Your task to perform on an android device: Show me popular games on the Play Store Image 0: 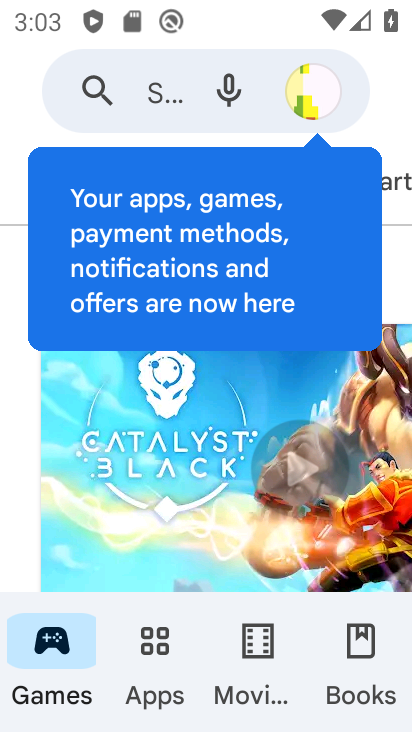
Step 0: press home button
Your task to perform on an android device: Show me popular games on the Play Store Image 1: 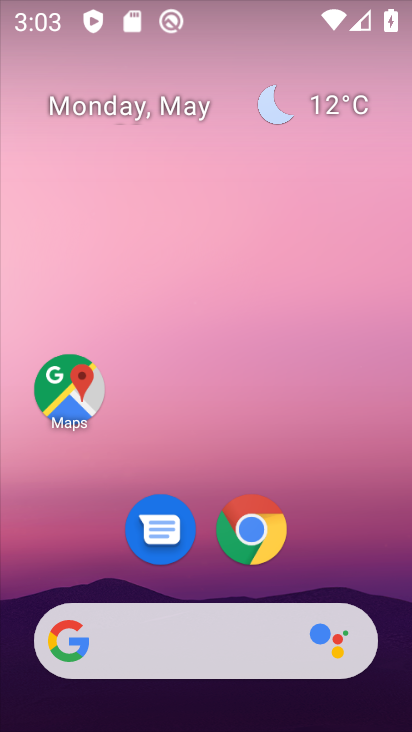
Step 1: drag from (314, 511) to (297, 103)
Your task to perform on an android device: Show me popular games on the Play Store Image 2: 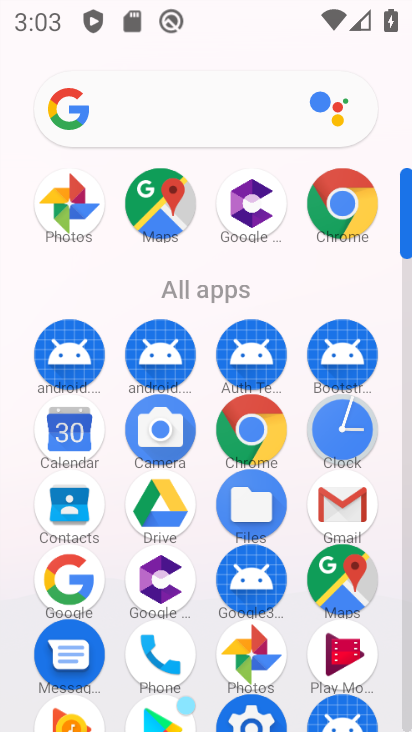
Step 2: drag from (279, 616) to (312, 230)
Your task to perform on an android device: Show me popular games on the Play Store Image 3: 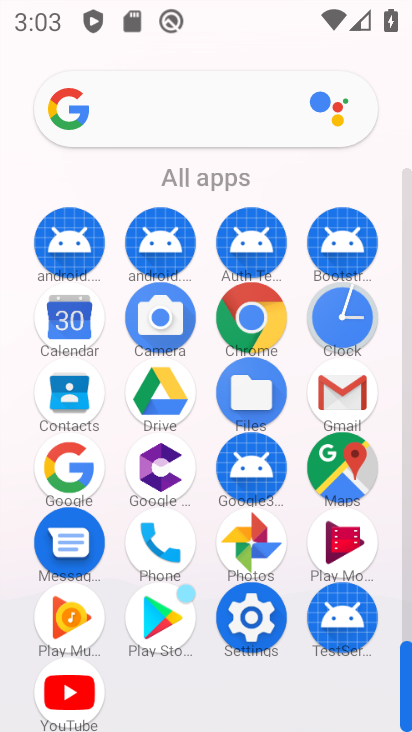
Step 3: click (157, 632)
Your task to perform on an android device: Show me popular games on the Play Store Image 4: 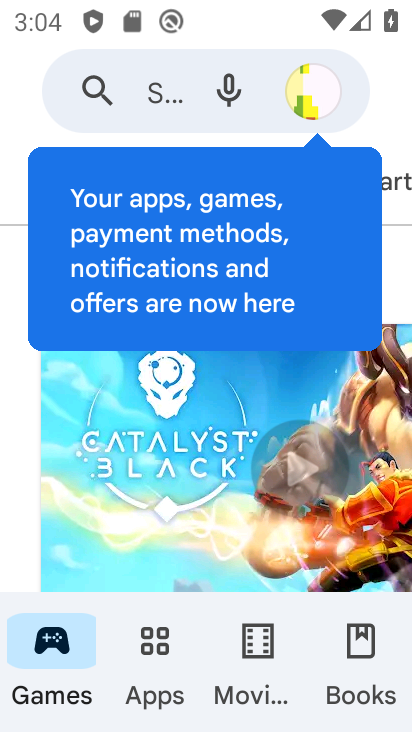
Step 4: drag from (193, 483) to (231, 105)
Your task to perform on an android device: Show me popular games on the Play Store Image 5: 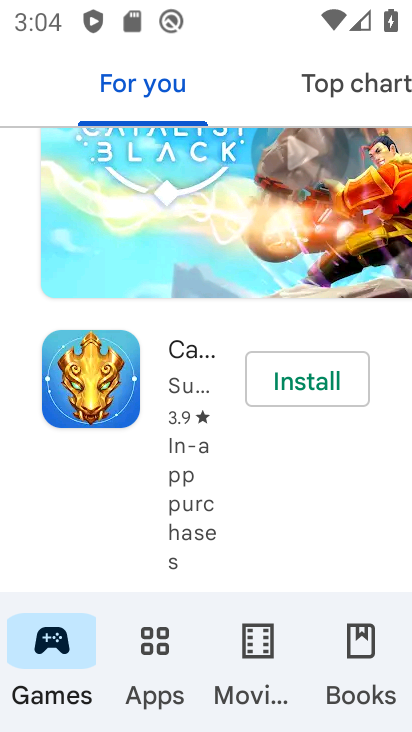
Step 5: drag from (178, 470) to (235, 134)
Your task to perform on an android device: Show me popular games on the Play Store Image 6: 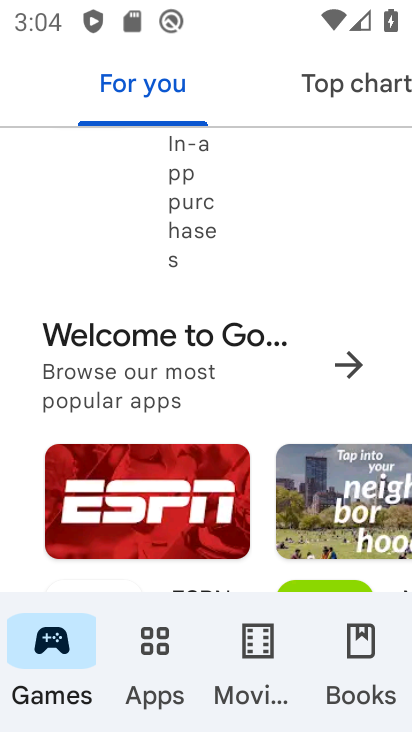
Step 6: drag from (173, 508) to (206, 150)
Your task to perform on an android device: Show me popular games on the Play Store Image 7: 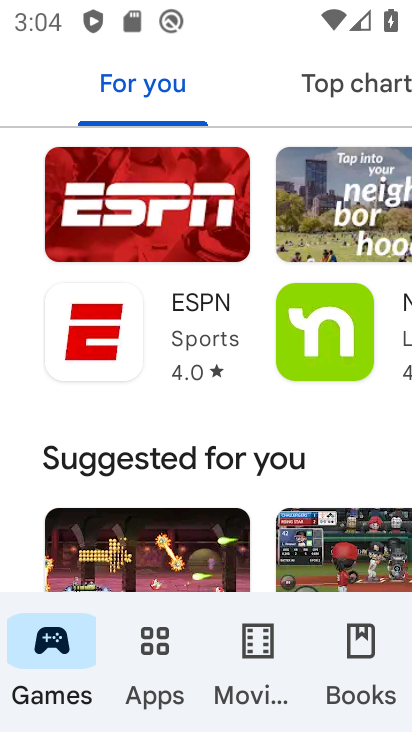
Step 7: drag from (192, 518) to (216, 154)
Your task to perform on an android device: Show me popular games on the Play Store Image 8: 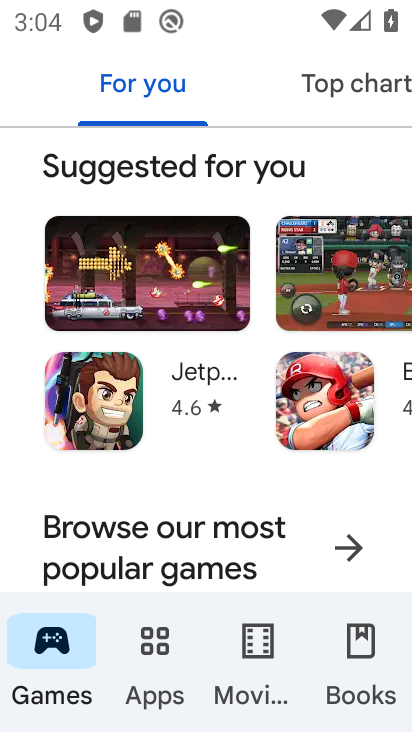
Step 8: drag from (170, 460) to (249, 136)
Your task to perform on an android device: Show me popular games on the Play Store Image 9: 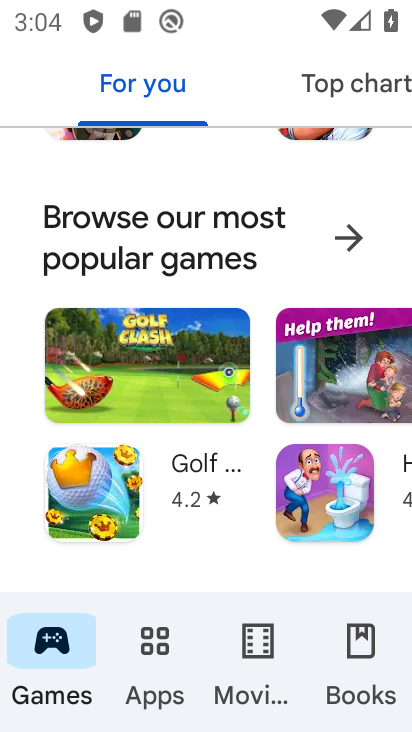
Step 9: drag from (216, 462) to (234, 104)
Your task to perform on an android device: Show me popular games on the Play Store Image 10: 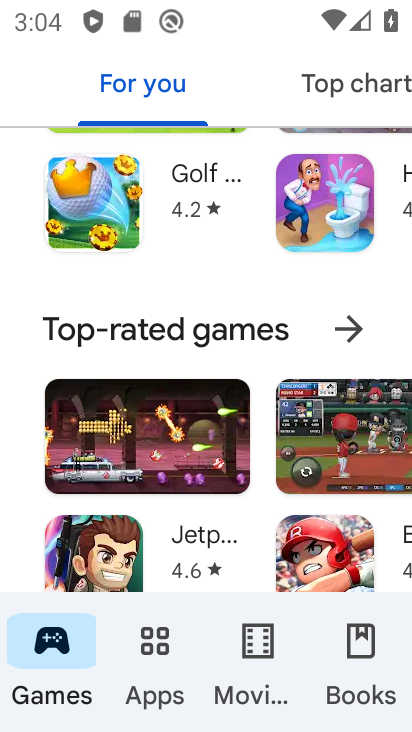
Step 10: drag from (177, 468) to (233, 140)
Your task to perform on an android device: Show me popular games on the Play Store Image 11: 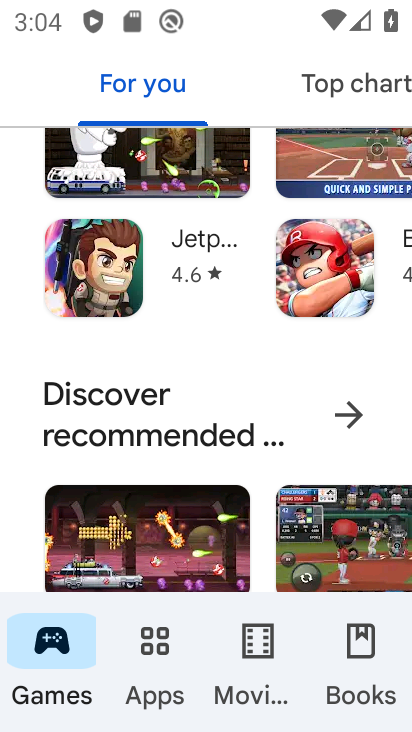
Step 11: drag from (211, 523) to (262, 164)
Your task to perform on an android device: Show me popular games on the Play Store Image 12: 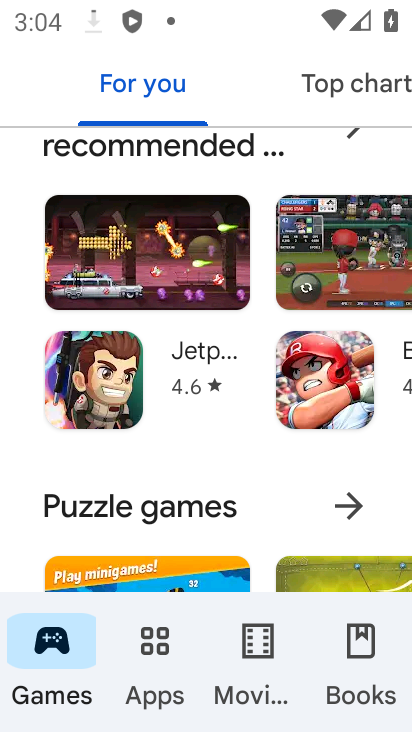
Step 12: drag from (201, 572) to (275, 166)
Your task to perform on an android device: Show me popular games on the Play Store Image 13: 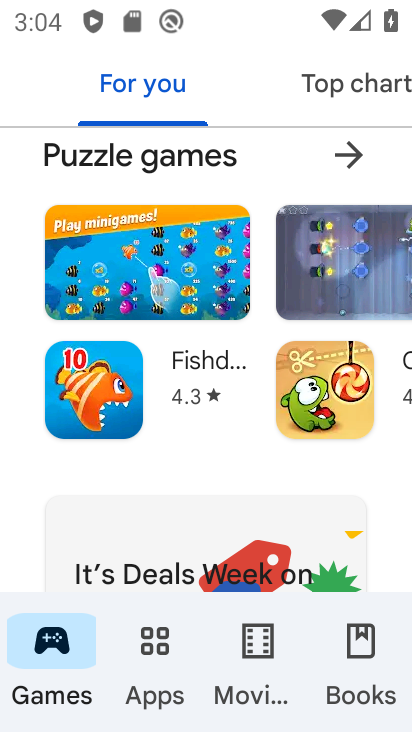
Step 13: drag from (235, 493) to (250, 205)
Your task to perform on an android device: Show me popular games on the Play Store Image 14: 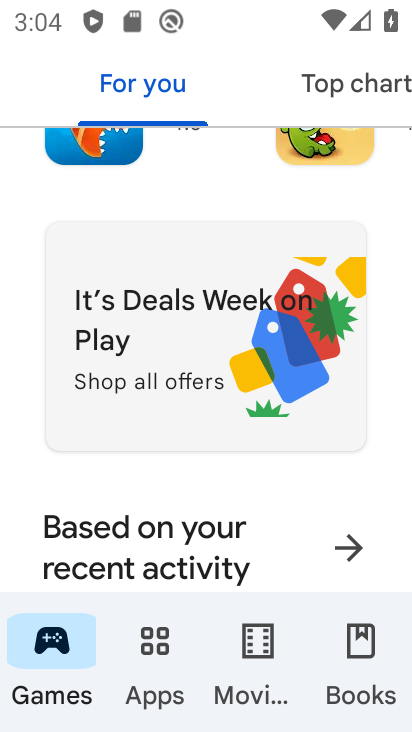
Step 14: drag from (215, 545) to (226, 198)
Your task to perform on an android device: Show me popular games on the Play Store Image 15: 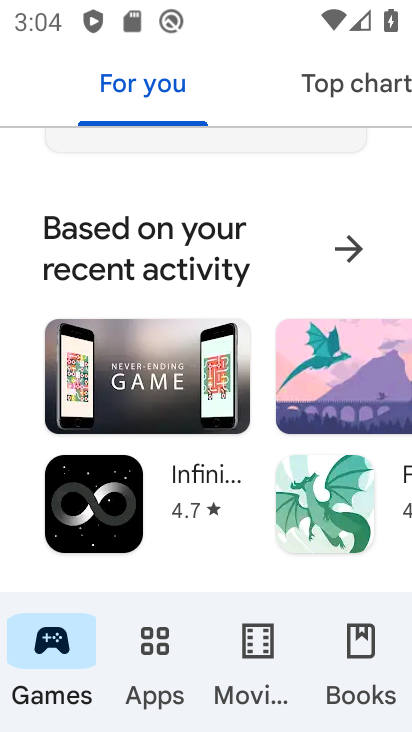
Step 15: drag from (218, 491) to (224, 147)
Your task to perform on an android device: Show me popular games on the Play Store Image 16: 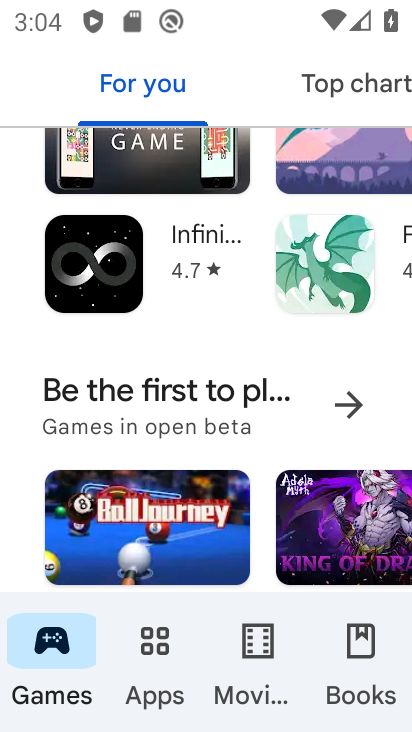
Step 16: drag from (183, 446) to (230, 149)
Your task to perform on an android device: Show me popular games on the Play Store Image 17: 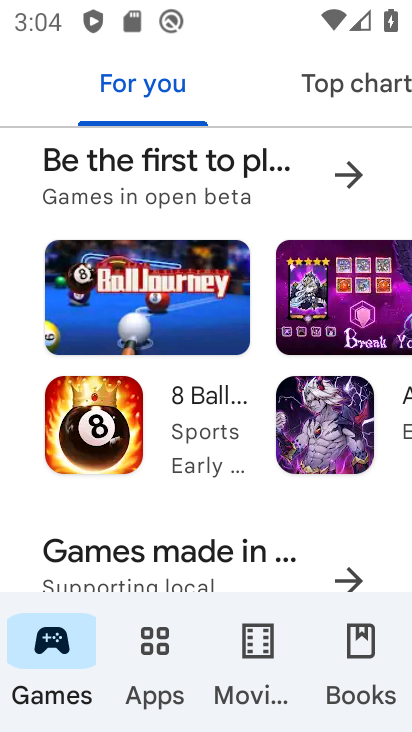
Step 17: drag from (192, 426) to (241, 145)
Your task to perform on an android device: Show me popular games on the Play Store Image 18: 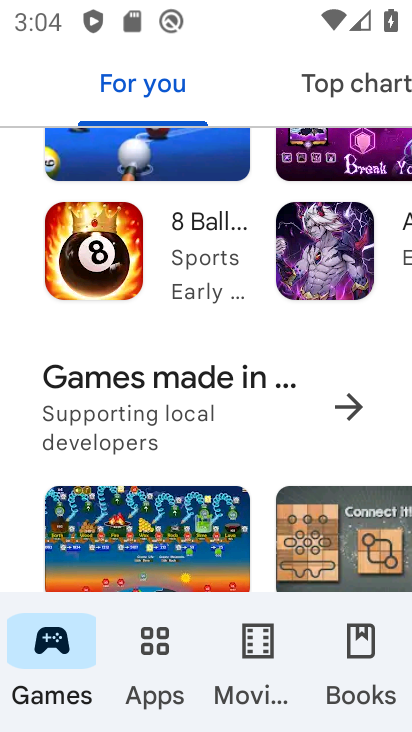
Step 18: drag from (218, 426) to (248, 153)
Your task to perform on an android device: Show me popular games on the Play Store Image 19: 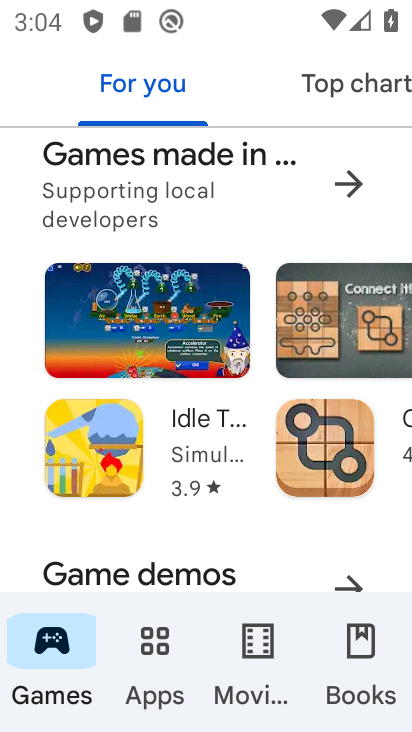
Step 19: drag from (189, 527) to (230, 184)
Your task to perform on an android device: Show me popular games on the Play Store Image 20: 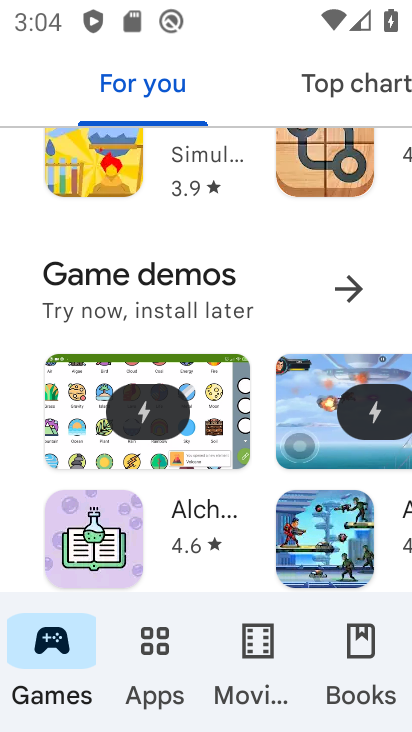
Step 20: drag from (206, 462) to (241, 191)
Your task to perform on an android device: Show me popular games on the Play Store Image 21: 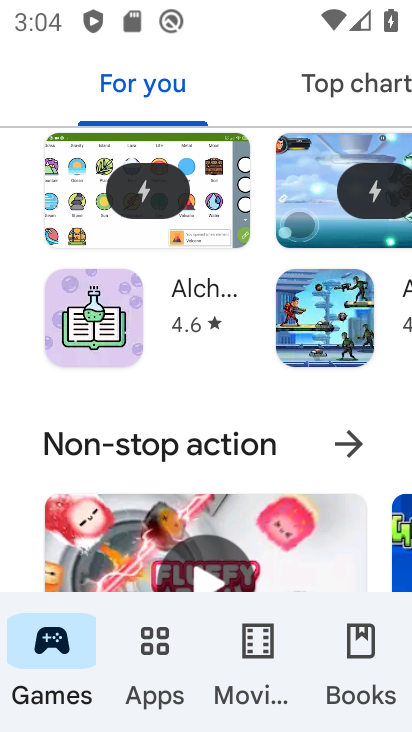
Step 21: drag from (186, 477) to (223, 222)
Your task to perform on an android device: Show me popular games on the Play Store Image 22: 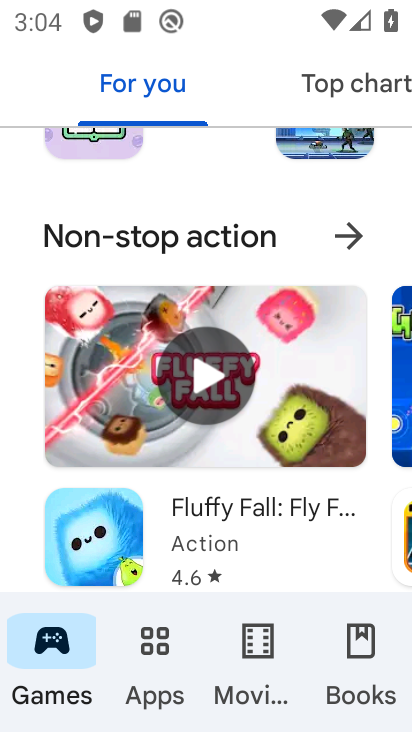
Step 22: click (223, 210)
Your task to perform on an android device: Show me popular games on the Play Store Image 23: 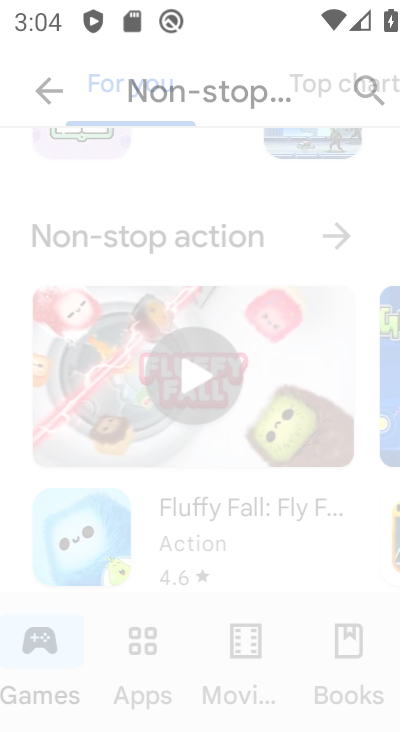
Step 23: drag from (213, 366) to (245, 169)
Your task to perform on an android device: Show me popular games on the Play Store Image 24: 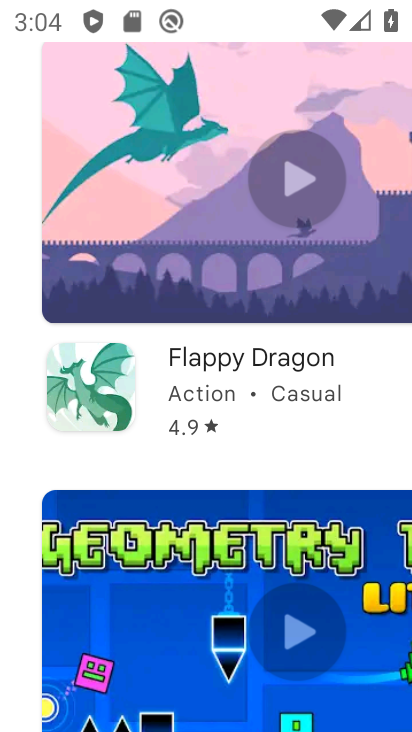
Step 24: click (243, 115)
Your task to perform on an android device: Show me popular games on the Play Store Image 25: 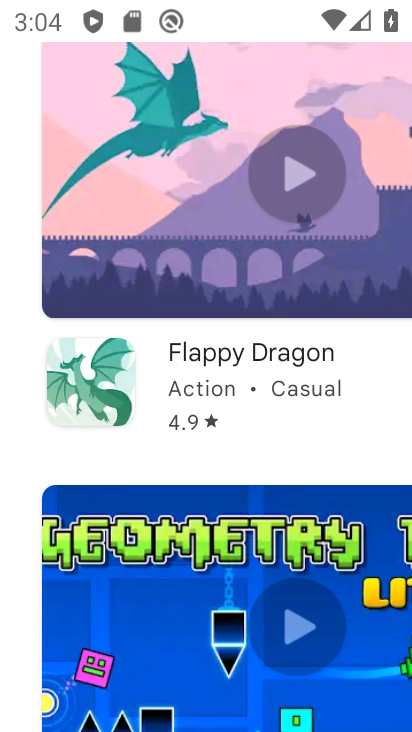
Step 25: drag from (96, 115) to (149, 503)
Your task to perform on an android device: Show me popular games on the Play Store Image 26: 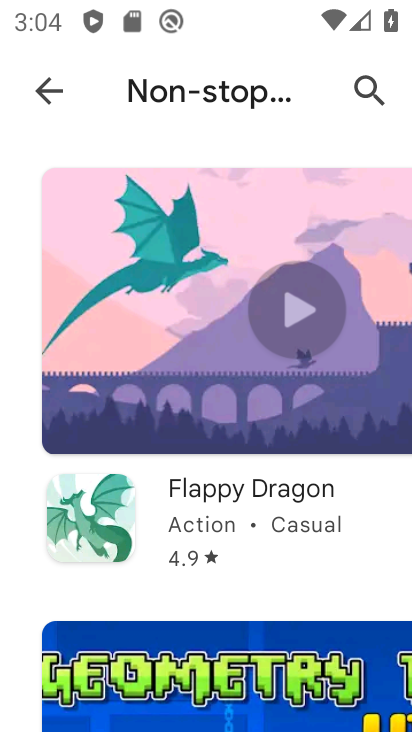
Step 26: click (53, 104)
Your task to perform on an android device: Show me popular games on the Play Store Image 27: 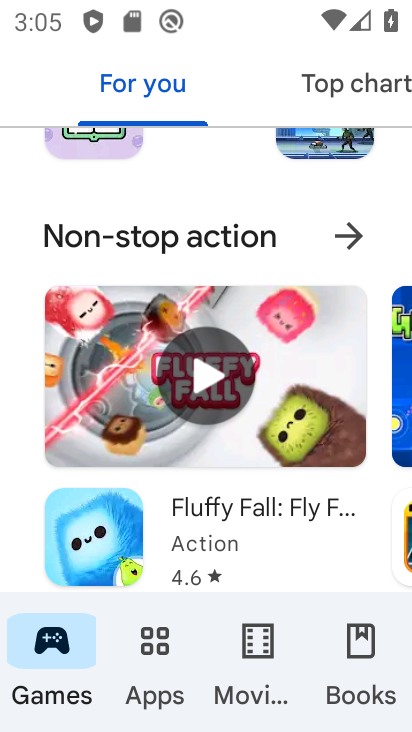
Step 27: drag from (200, 555) to (242, 154)
Your task to perform on an android device: Show me popular games on the Play Store Image 28: 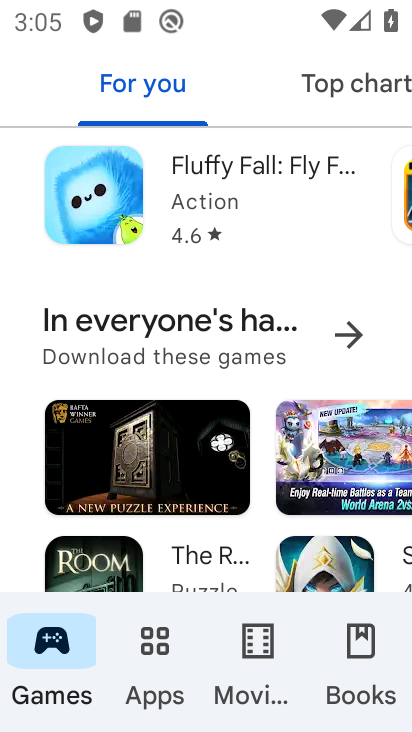
Step 28: drag from (183, 491) to (235, 167)
Your task to perform on an android device: Show me popular games on the Play Store Image 29: 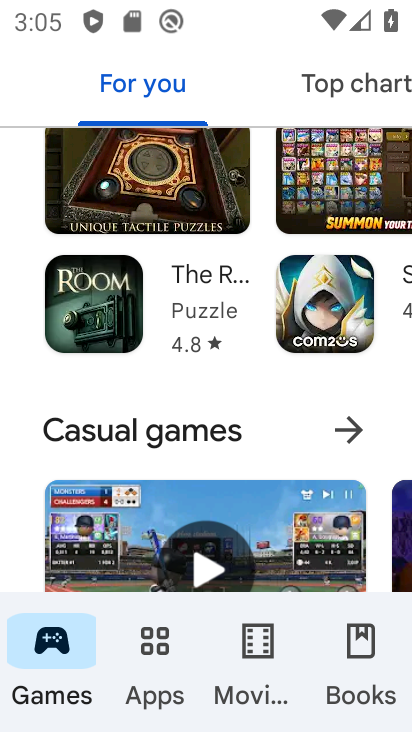
Step 29: drag from (152, 528) to (229, 148)
Your task to perform on an android device: Show me popular games on the Play Store Image 30: 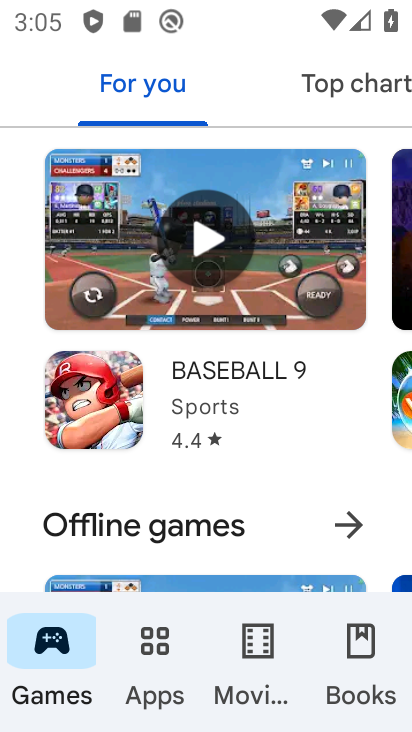
Step 30: drag from (214, 510) to (270, 214)
Your task to perform on an android device: Show me popular games on the Play Store Image 31: 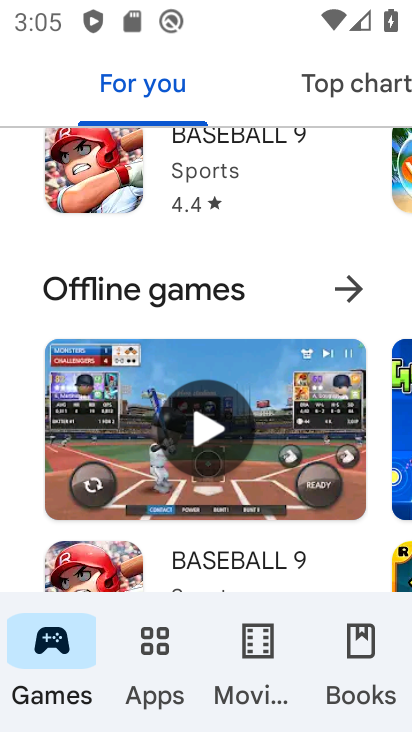
Step 31: drag from (122, 514) to (166, 176)
Your task to perform on an android device: Show me popular games on the Play Store Image 32: 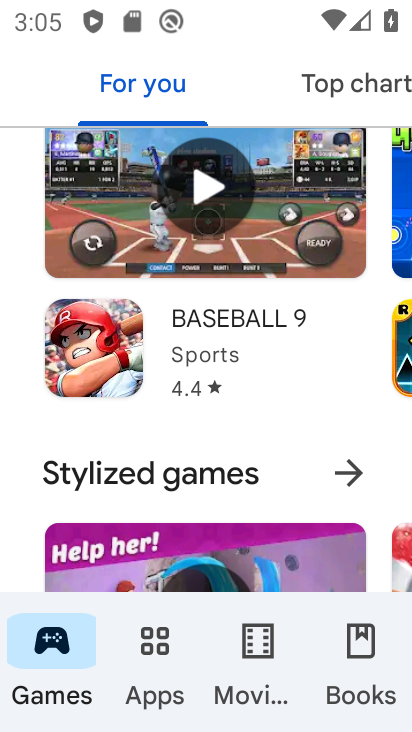
Step 32: click (168, 168)
Your task to perform on an android device: Show me popular games on the Play Store Image 33: 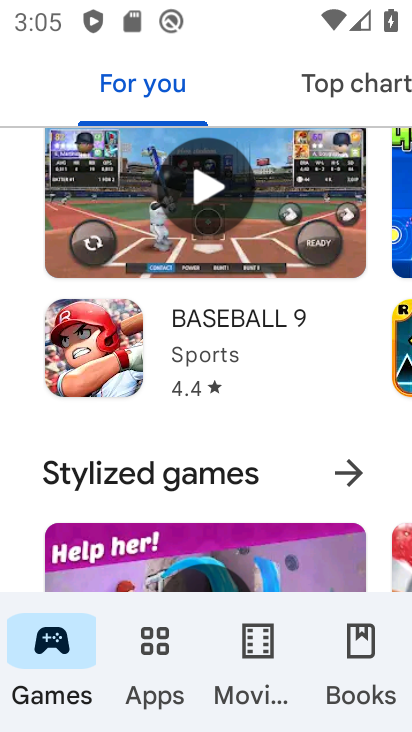
Step 33: drag from (191, 520) to (253, 199)
Your task to perform on an android device: Show me popular games on the Play Store Image 34: 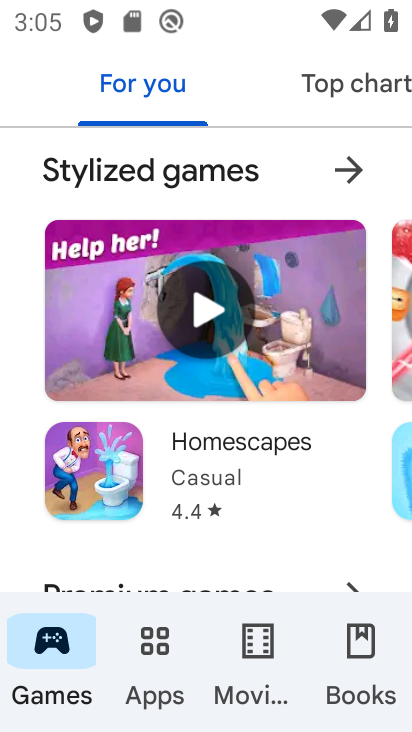
Step 34: drag from (213, 521) to (257, 212)
Your task to perform on an android device: Show me popular games on the Play Store Image 35: 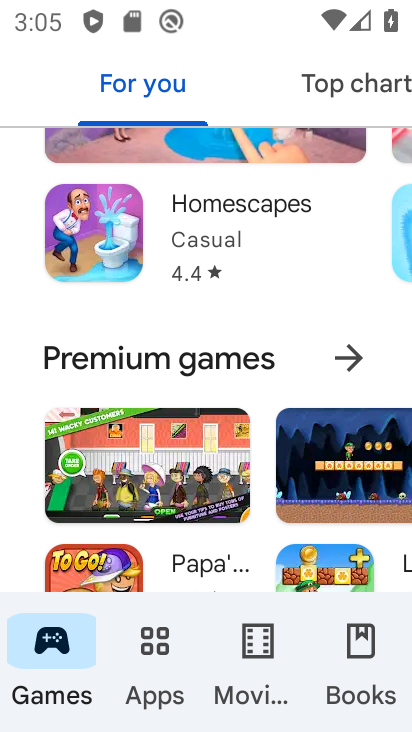
Step 35: drag from (200, 488) to (246, 230)
Your task to perform on an android device: Show me popular games on the Play Store Image 36: 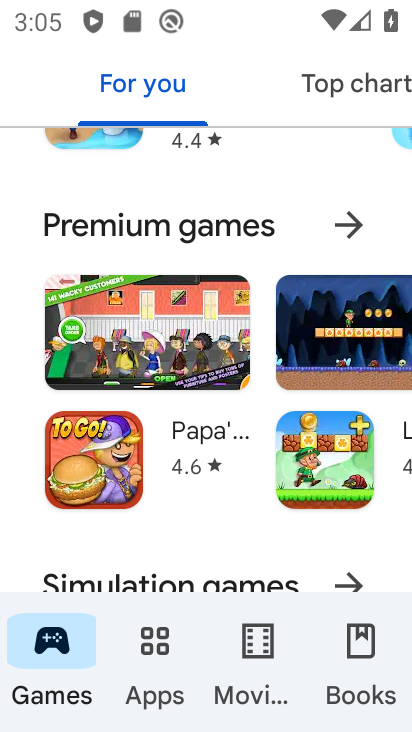
Step 36: drag from (186, 432) to (233, 164)
Your task to perform on an android device: Show me popular games on the Play Store Image 37: 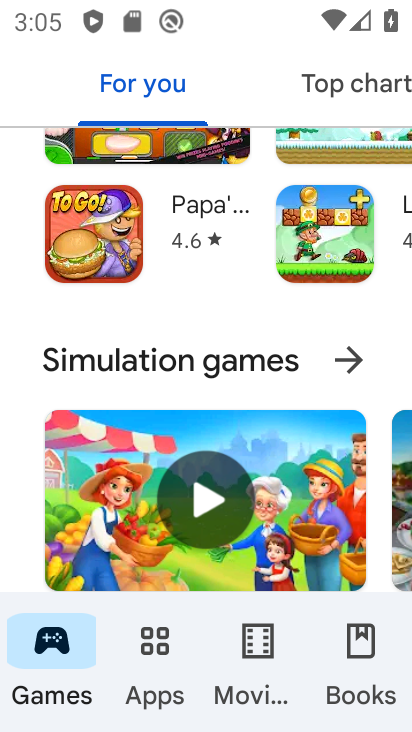
Step 37: drag from (246, 353) to (243, 147)
Your task to perform on an android device: Show me popular games on the Play Store Image 38: 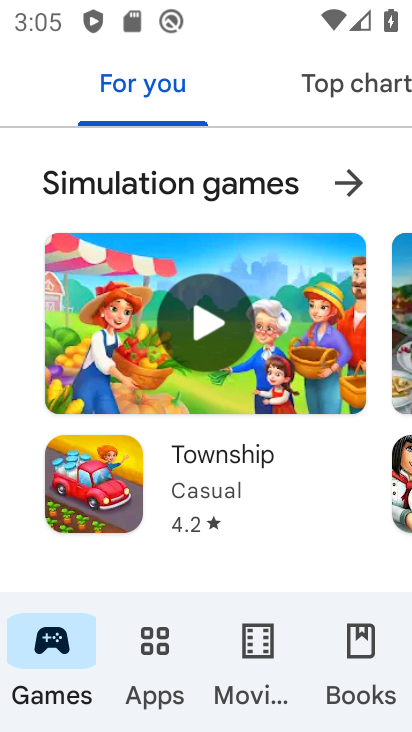
Step 38: drag from (141, 517) to (190, 204)
Your task to perform on an android device: Show me popular games on the Play Store Image 39: 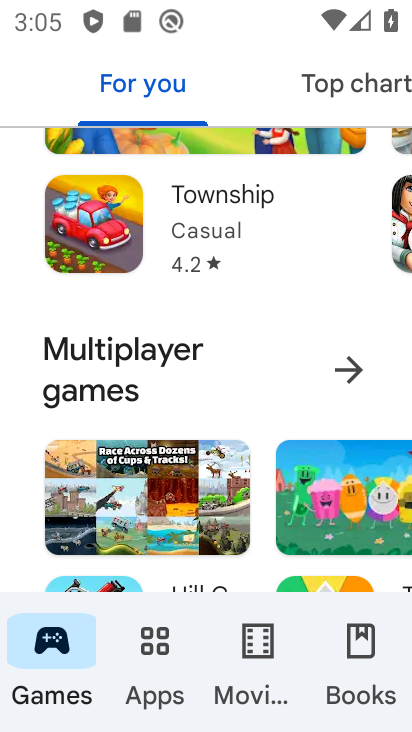
Step 39: drag from (195, 445) to (224, 171)
Your task to perform on an android device: Show me popular games on the Play Store Image 40: 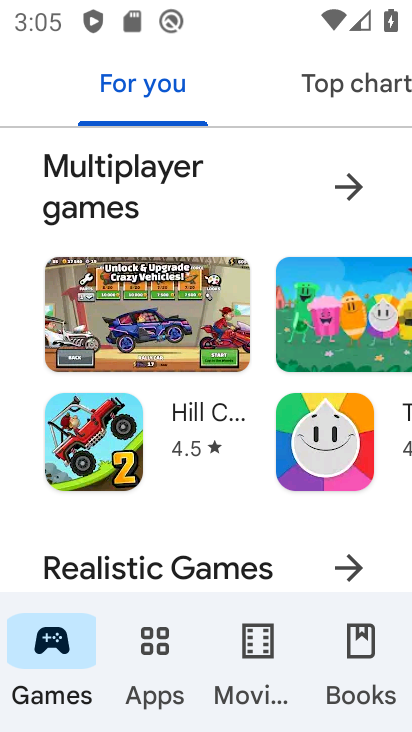
Step 40: drag from (176, 527) to (228, 151)
Your task to perform on an android device: Show me popular games on the Play Store Image 41: 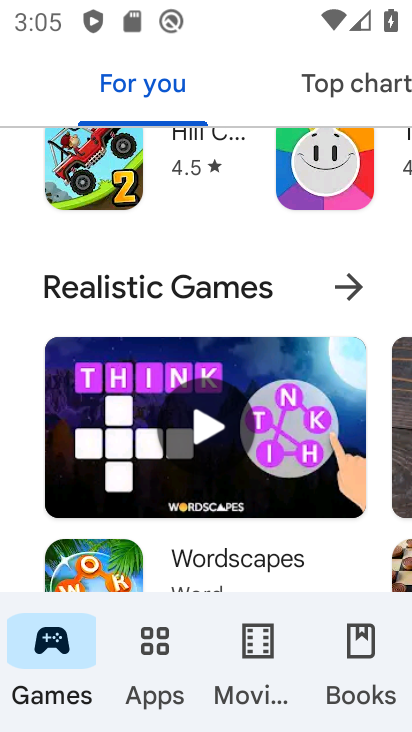
Step 41: drag from (209, 479) to (236, 165)
Your task to perform on an android device: Show me popular games on the Play Store Image 42: 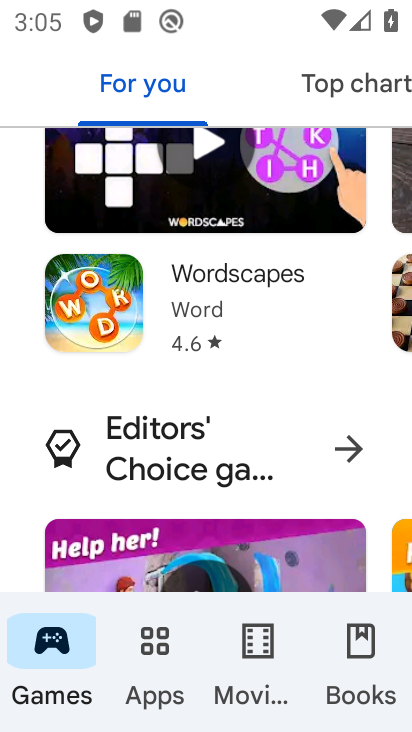
Step 42: drag from (184, 514) to (220, 164)
Your task to perform on an android device: Show me popular games on the Play Store Image 43: 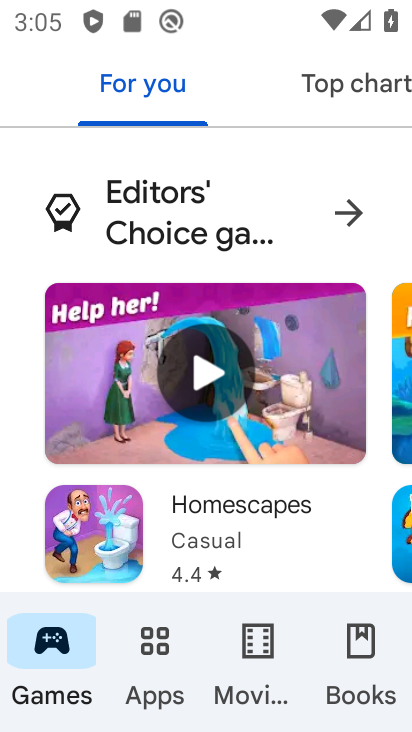
Step 43: click (222, 158)
Your task to perform on an android device: Show me popular games on the Play Store Image 44: 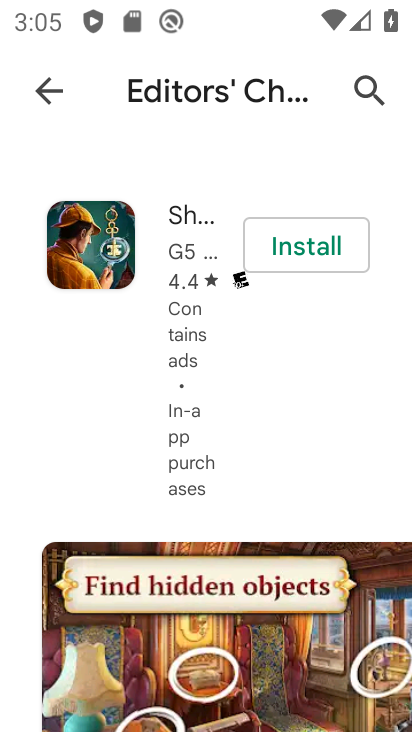
Step 44: click (57, 89)
Your task to perform on an android device: Show me popular games on the Play Store Image 45: 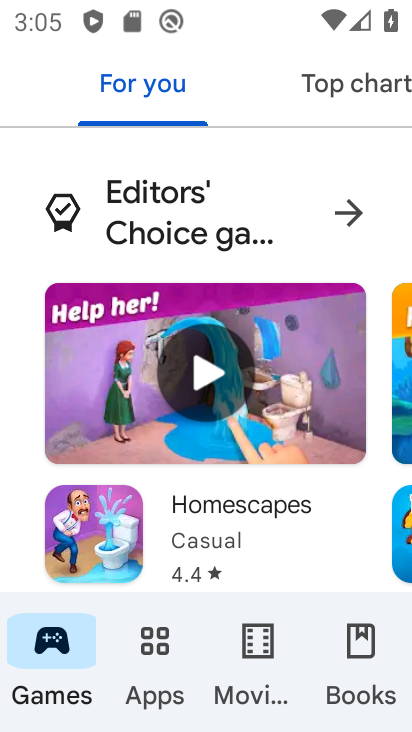
Step 45: drag from (172, 512) to (227, 90)
Your task to perform on an android device: Show me popular games on the Play Store Image 46: 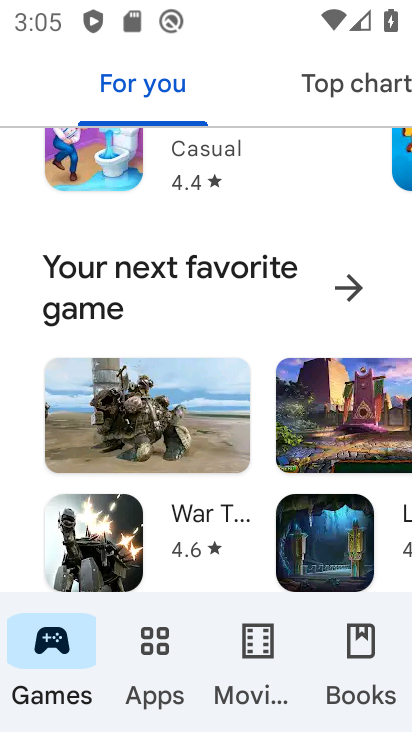
Step 46: drag from (164, 472) to (209, 124)
Your task to perform on an android device: Show me popular games on the Play Store Image 47: 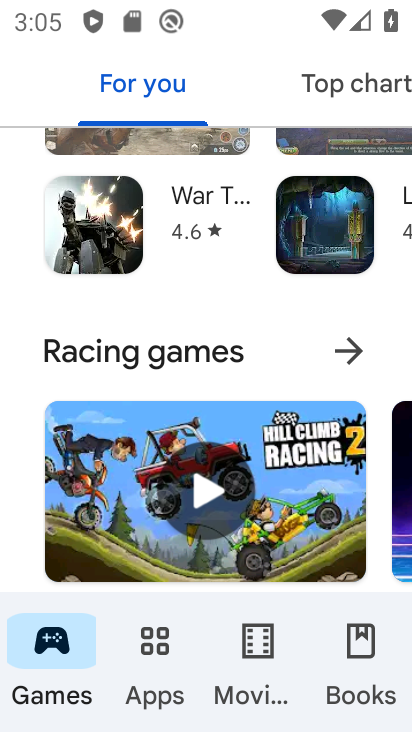
Step 47: drag from (318, 560) to (314, 127)
Your task to perform on an android device: Show me popular games on the Play Store Image 48: 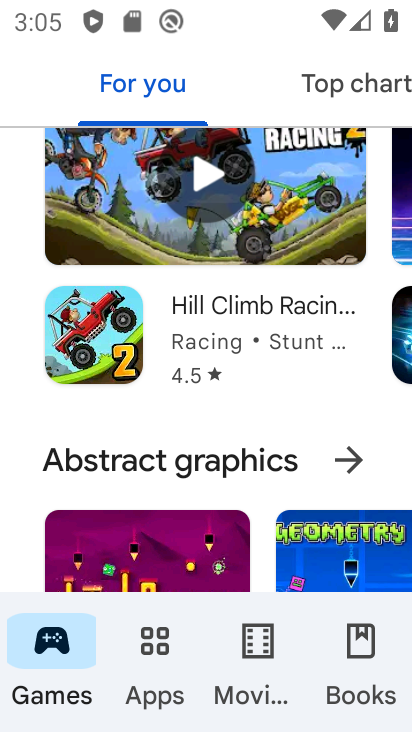
Step 48: drag from (250, 503) to (271, 146)
Your task to perform on an android device: Show me popular games on the Play Store Image 49: 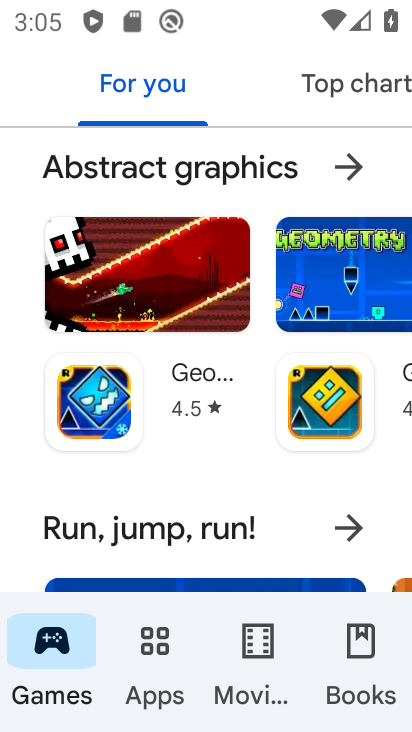
Step 49: drag from (217, 545) to (234, 212)
Your task to perform on an android device: Show me popular games on the Play Store Image 50: 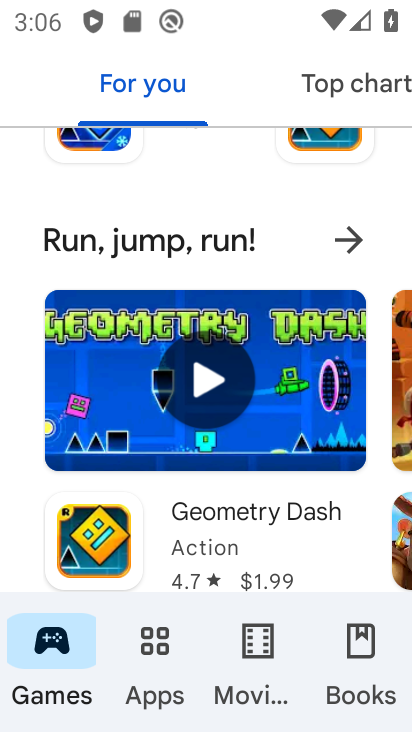
Step 50: drag from (204, 569) to (303, 252)
Your task to perform on an android device: Show me popular games on the Play Store Image 51: 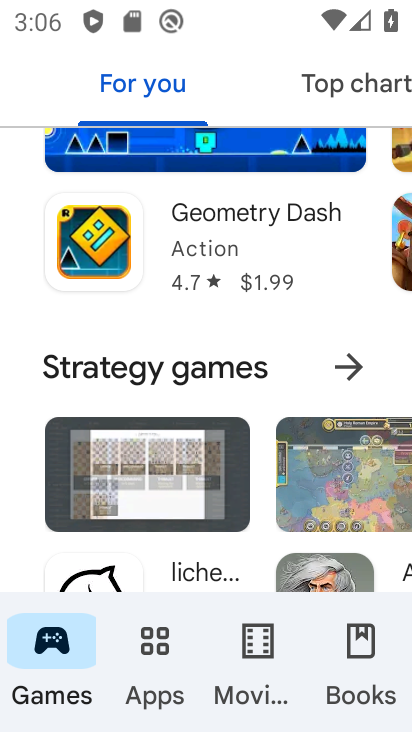
Step 51: drag from (217, 516) to (232, 183)
Your task to perform on an android device: Show me popular games on the Play Store Image 52: 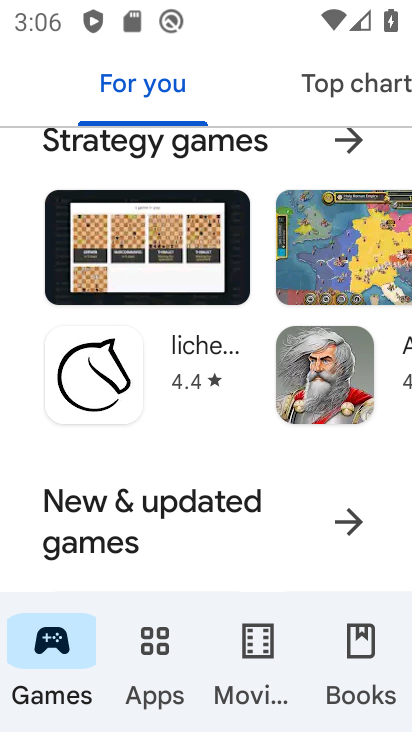
Step 52: drag from (190, 556) to (222, 179)
Your task to perform on an android device: Show me popular games on the Play Store Image 53: 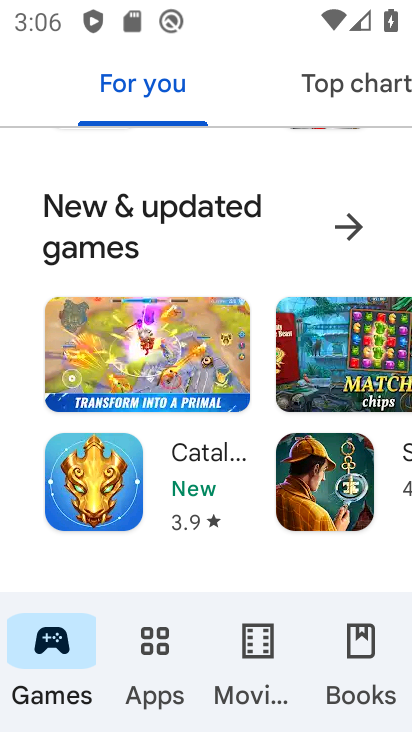
Step 53: drag from (195, 515) to (230, 152)
Your task to perform on an android device: Show me popular games on the Play Store Image 54: 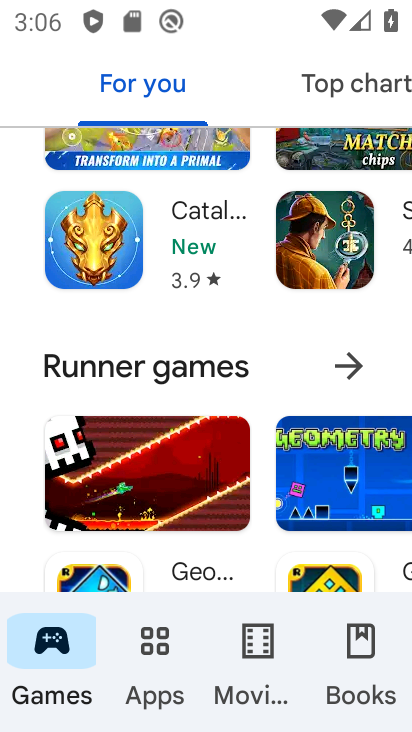
Step 54: drag from (159, 495) to (209, 108)
Your task to perform on an android device: Show me popular games on the Play Store Image 55: 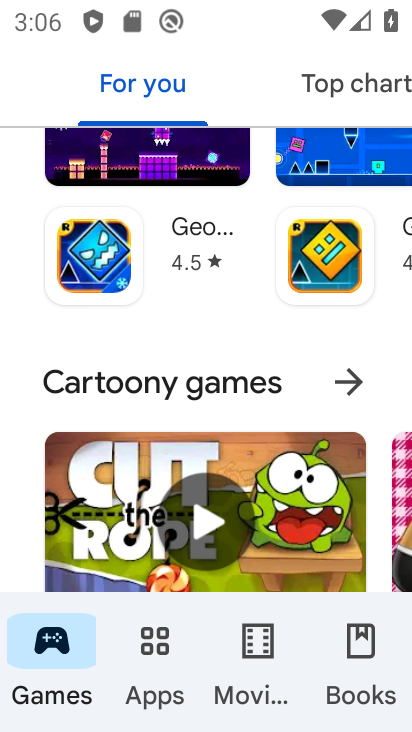
Step 55: drag from (136, 519) to (180, 127)
Your task to perform on an android device: Show me popular games on the Play Store Image 56: 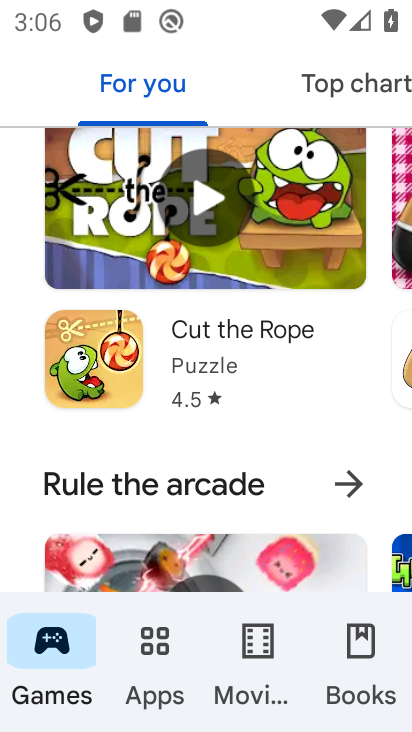
Step 56: drag from (244, 558) to (275, 218)
Your task to perform on an android device: Show me popular games on the Play Store Image 57: 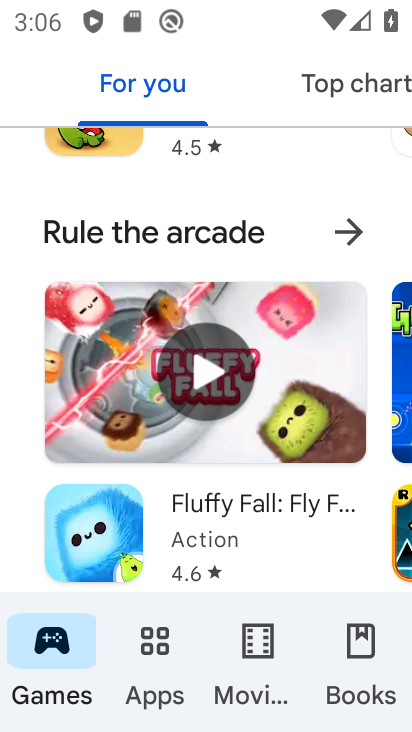
Step 57: click (281, 200)
Your task to perform on an android device: Show me popular games on the Play Store Image 58: 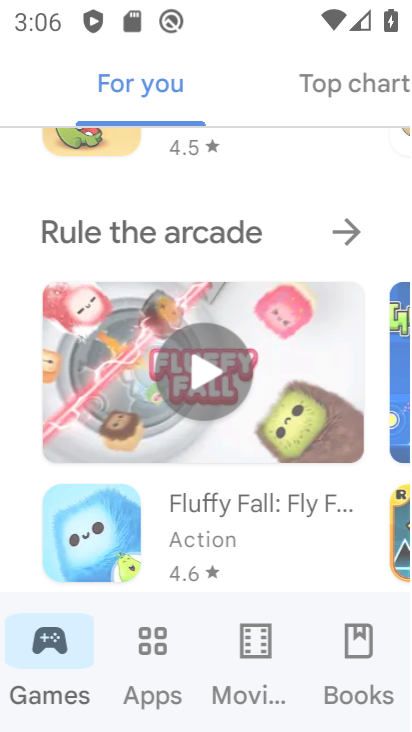
Step 58: drag from (242, 564) to (294, 265)
Your task to perform on an android device: Show me popular games on the Play Store Image 59: 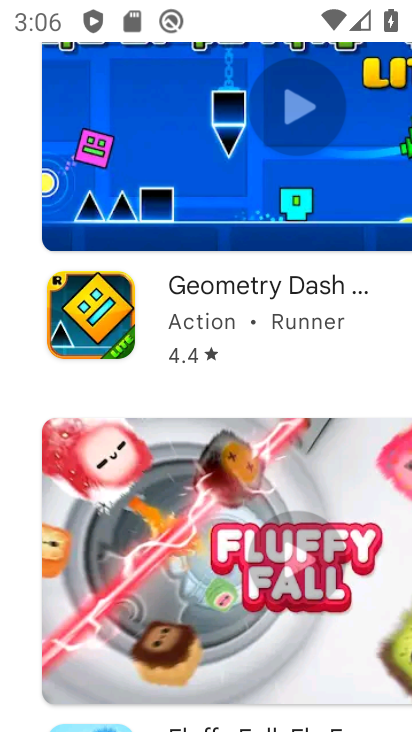
Step 59: drag from (84, 164) to (129, 531)
Your task to perform on an android device: Show me popular games on the Play Store Image 60: 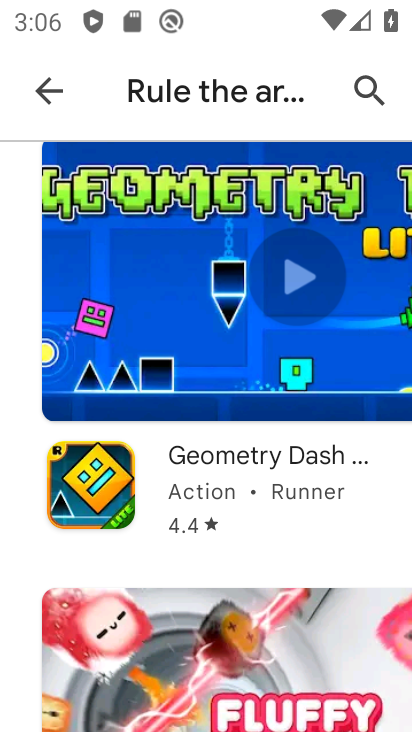
Step 60: click (51, 90)
Your task to perform on an android device: Show me popular games on the Play Store Image 61: 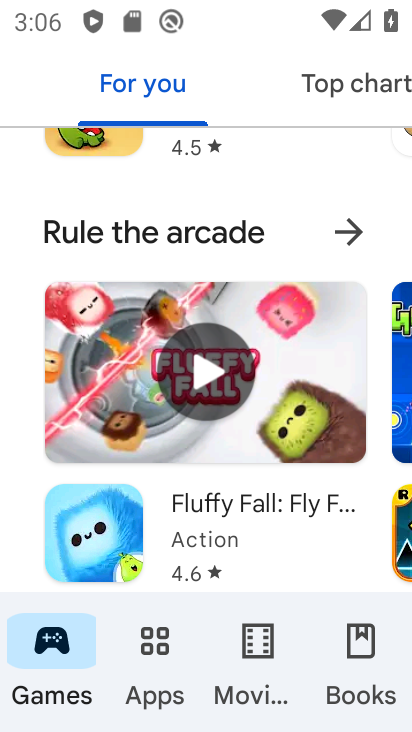
Step 61: task complete